Your task to perform on an android device: turn off notifications settings in the gmail app Image 0: 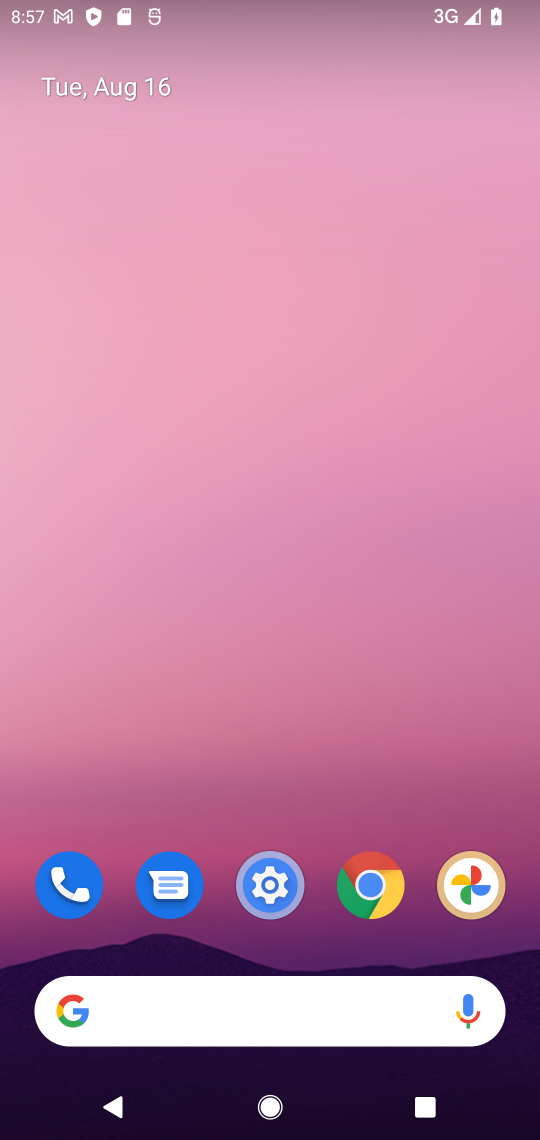
Step 0: drag from (232, 110) to (117, 12)
Your task to perform on an android device: turn off notifications settings in the gmail app Image 1: 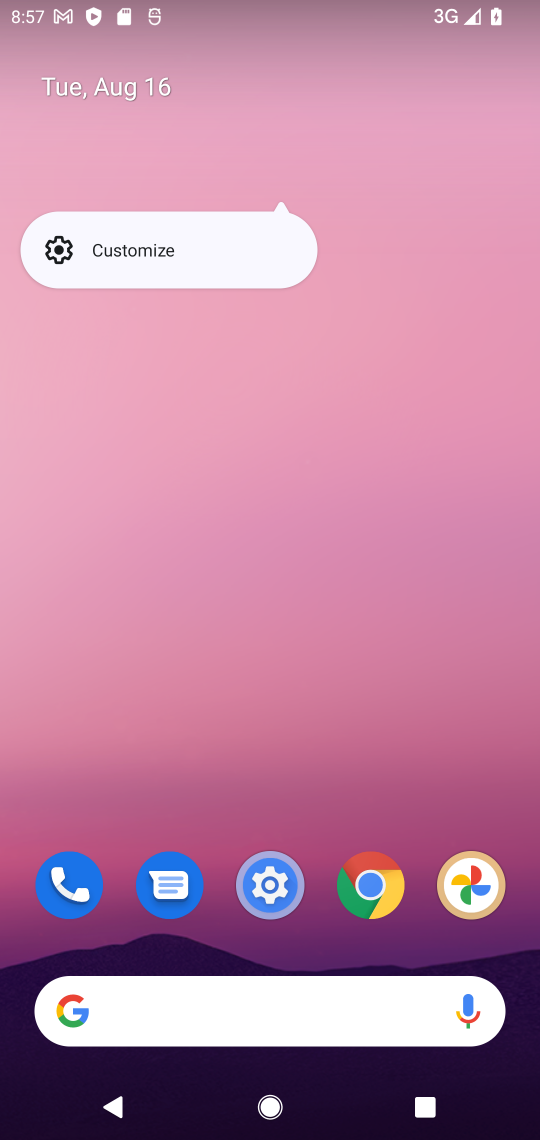
Step 1: drag from (438, 13) to (484, 216)
Your task to perform on an android device: turn off notifications settings in the gmail app Image 2: 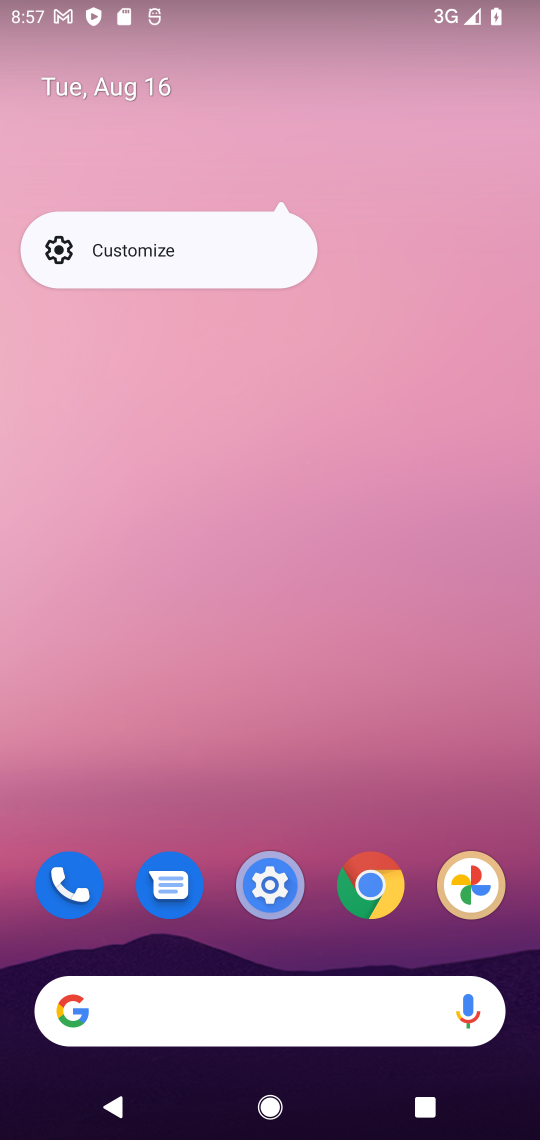
Step 2: drag from (246, 149) to (267, 251)
Your task to perform on an android device: turn off notifications settings in the gmail app Image 3: 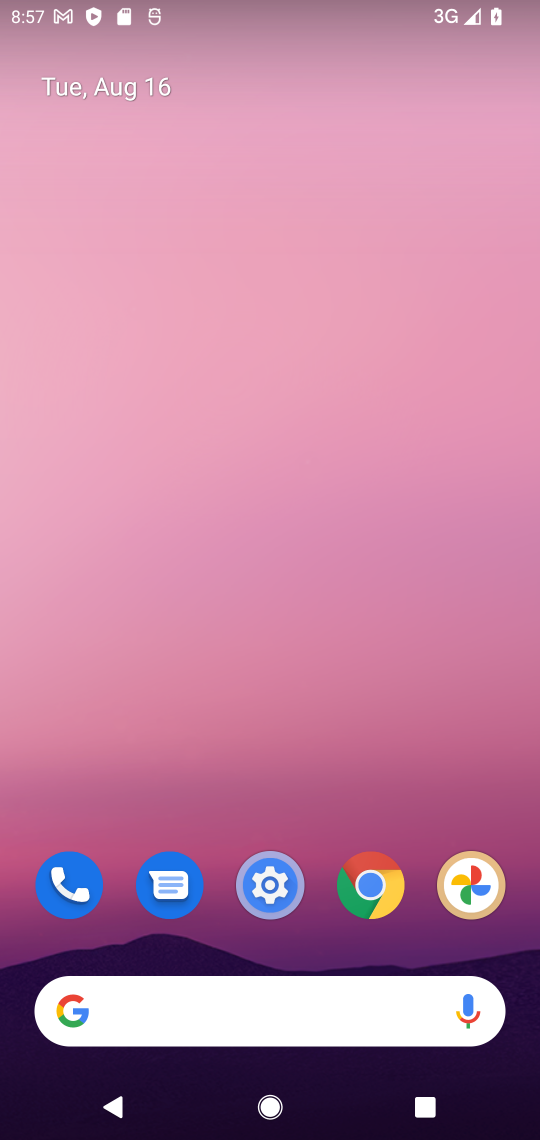
Step 3: drag from (222, 926) to (511, 613)
Your task to perform on an android device: turn off notifications settings in the gmail app Image 4: 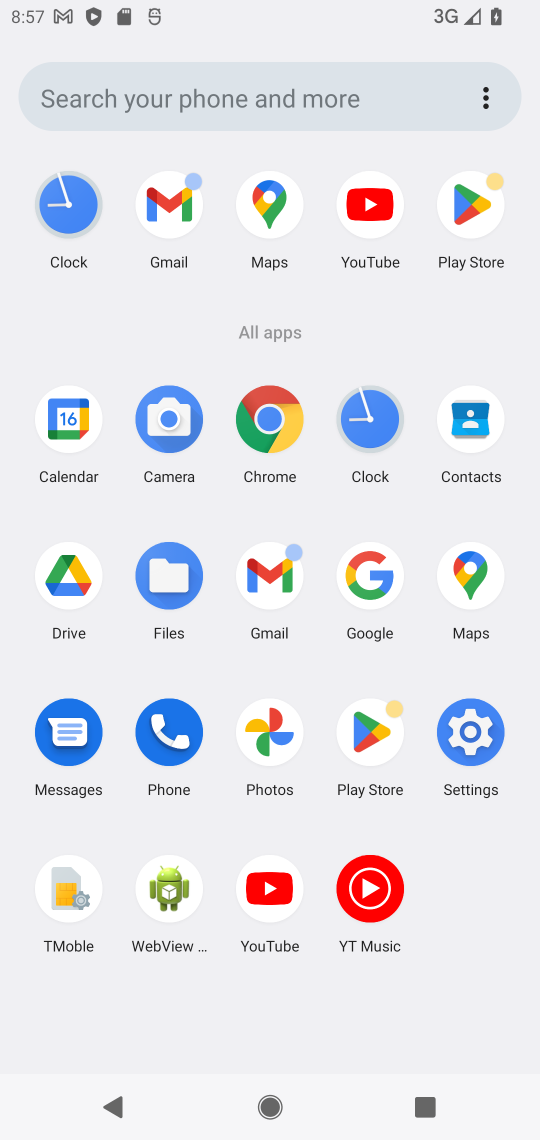
Step 4: click (277, 626)
Your task to perform on an android device: turn off notifications settings in the gmail app Image 5: 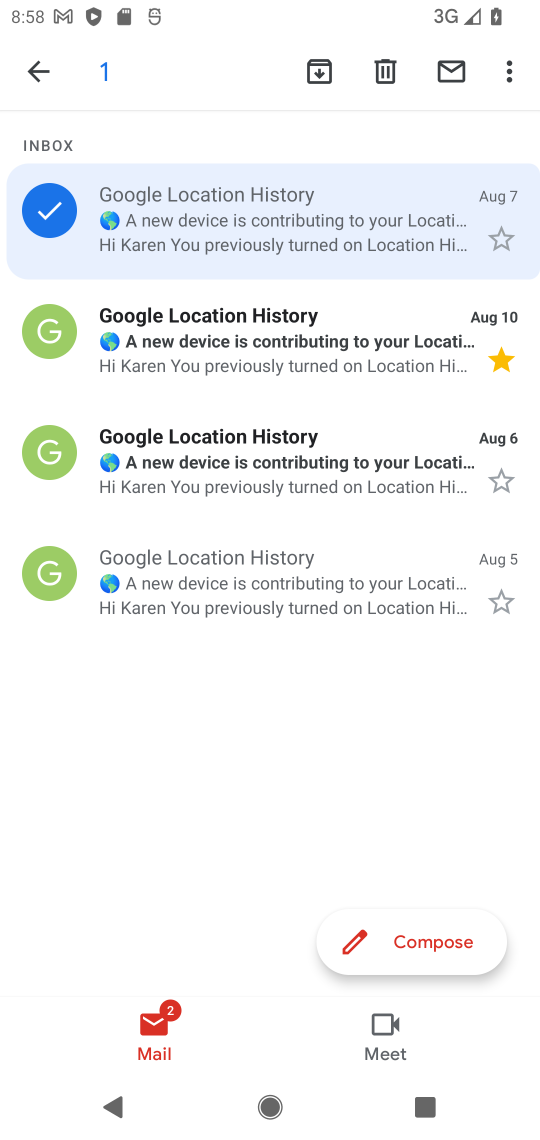
Step 5: click (34, 72)
Your task to perform on an android device: turn off notifications settings in the gmail app Image 6: 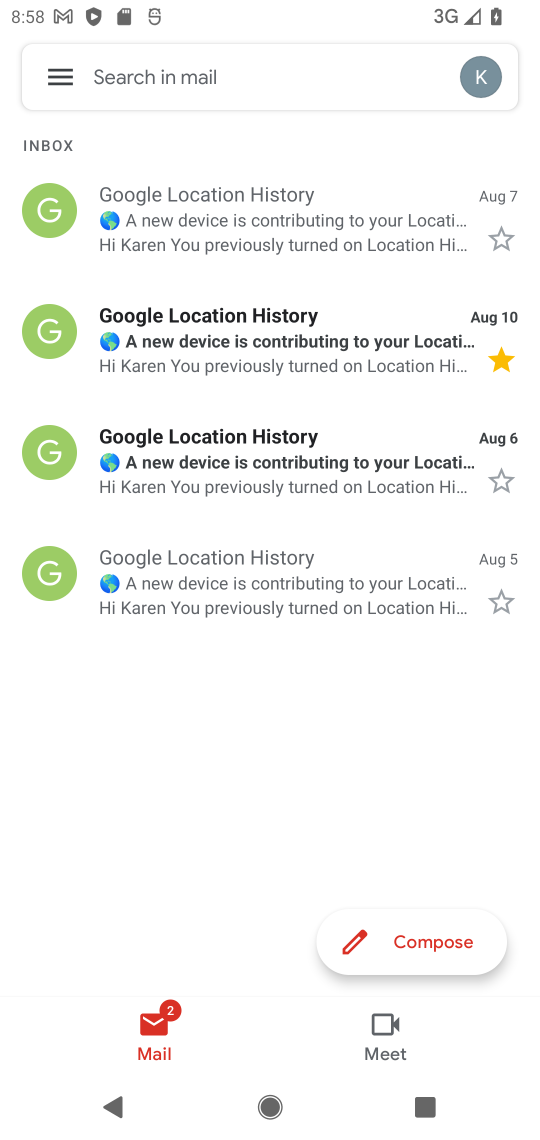
Step 6: click (61, 78)
Your task to perform on an android device: turn off notifications settings in the gmail app Image 7: 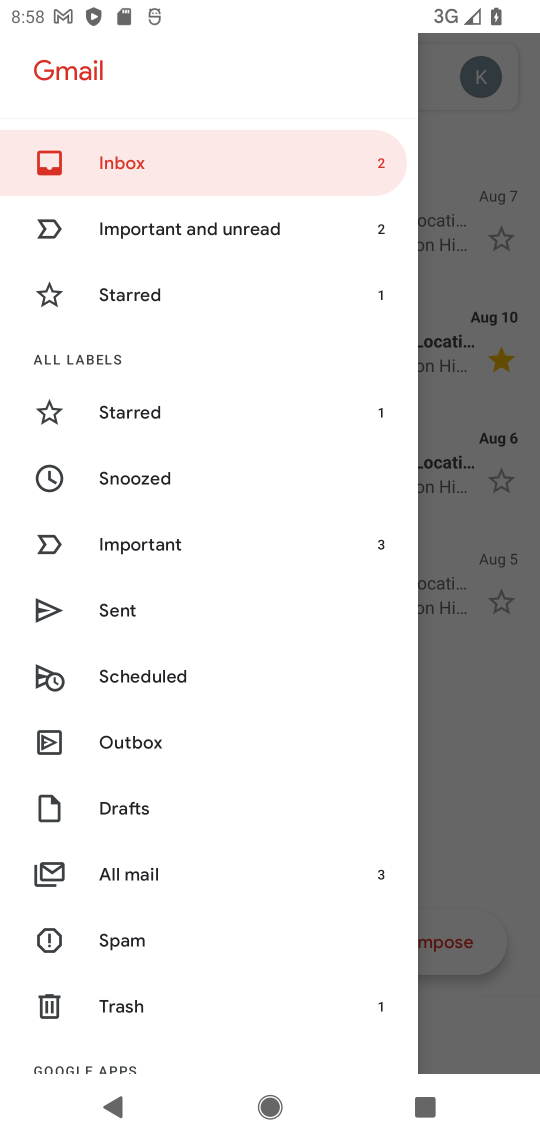
Step 7: drag from (132, 999) to (132, 396)
Your task to perform on an android device: turn off notifications settings in the gmail app Image 8: 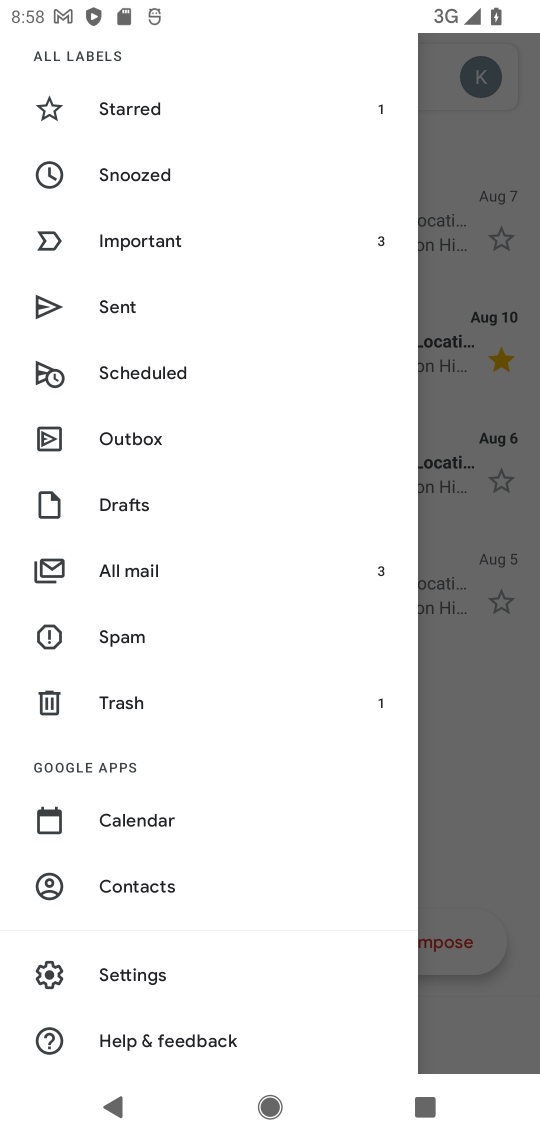
Step 8: click (140, 968)
Your task to perform on an android device: turn off notifications settings in the gmail app Image 9: 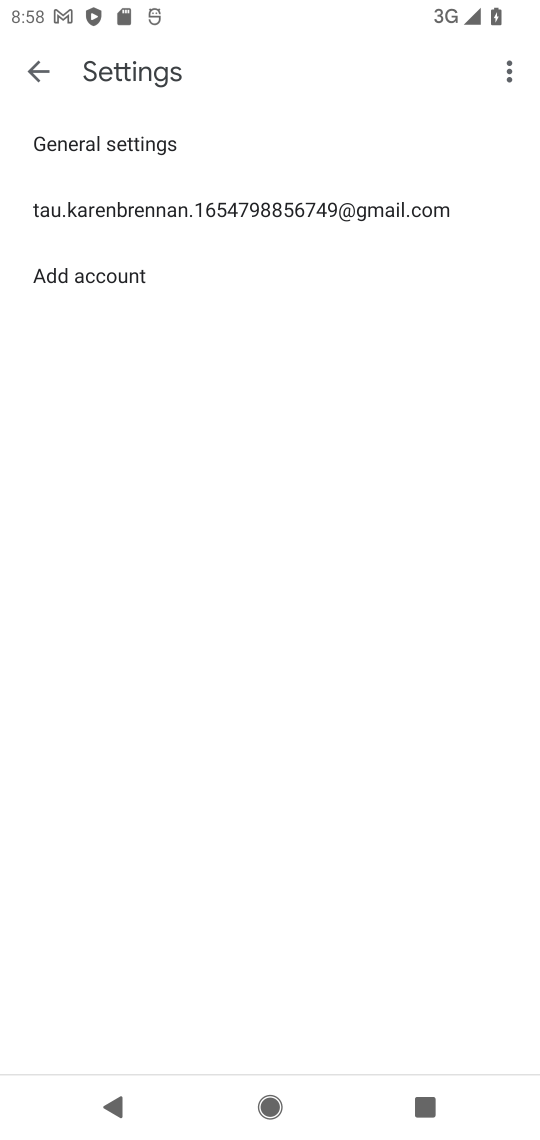
Step 9: click (125, 209)
Your task to perform on an android device: turn off notifications settings in the gmail app Image 10: 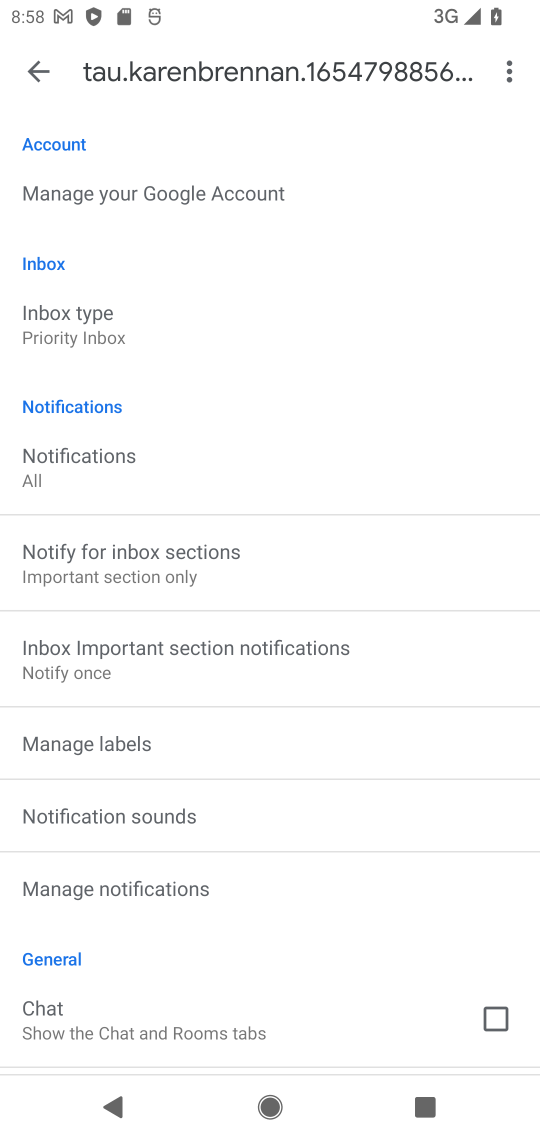
Step 10: click (118, 896)
Your task to perform on an android device: turn off notifications settings in the gmail app Image 11: 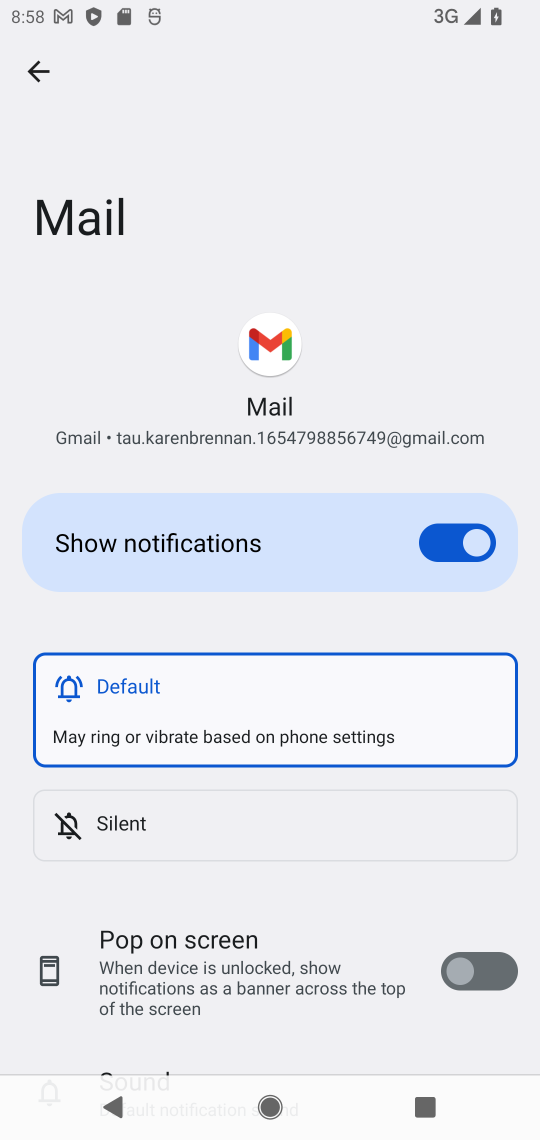
Step 11: click (430, 544)
Your task to perform on an android device: turn off notifications settings in the gmail app Image 12: 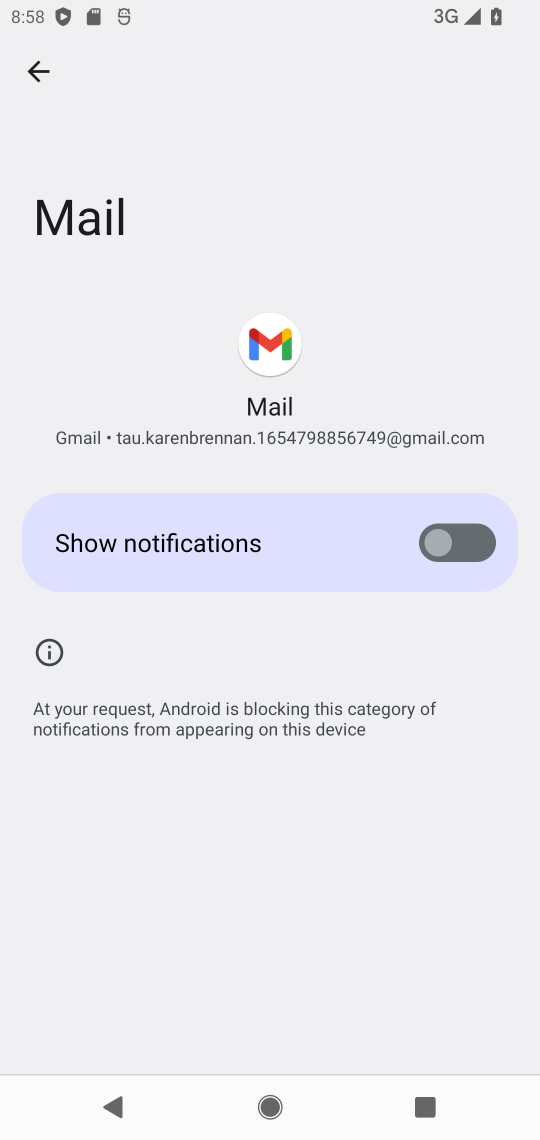
Step 12: task complete